Your task to perform on an android device: Go to settings Image 0: 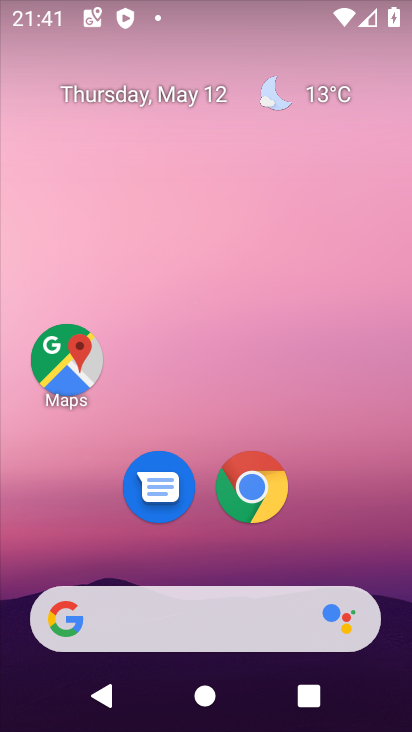
Step 0: drag from (207, 547) to (215, 285)
Your task to perform on an android device: Go to settings Image 1: 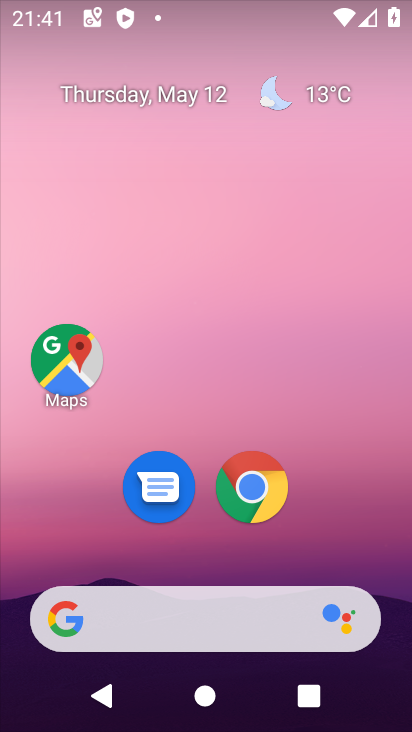
Step 1: drag from (209, 542) to (296, 27)
Your task to perform on an android device: Go to settings Image 2: 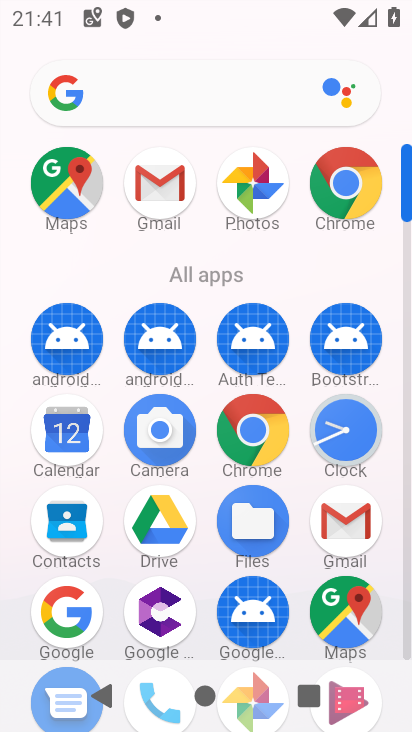
Step 2: drag from (198, 573) to (221, 180)
Your task to perform on an android device: Go to settings Image 3: 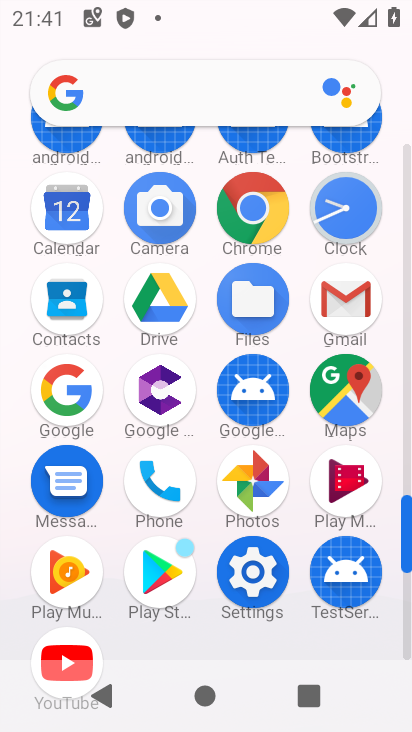
Step 3: click (265, 559)
Your task to perform on an android device: Go to settings Image 4: 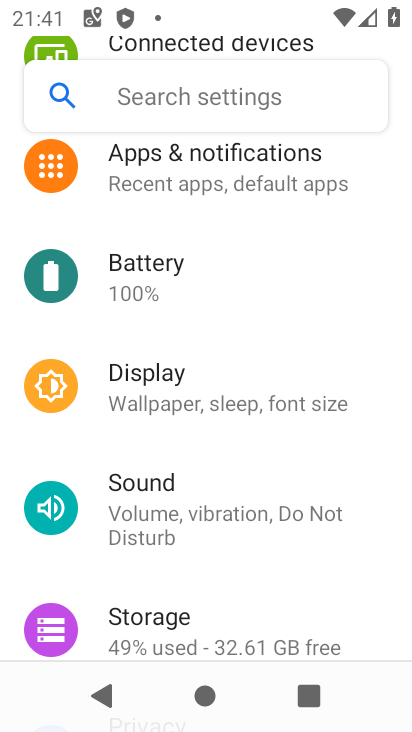
Step 4: task complete